Your task to perform on an android device: open app "DoorDash - Dasher" Image 0: 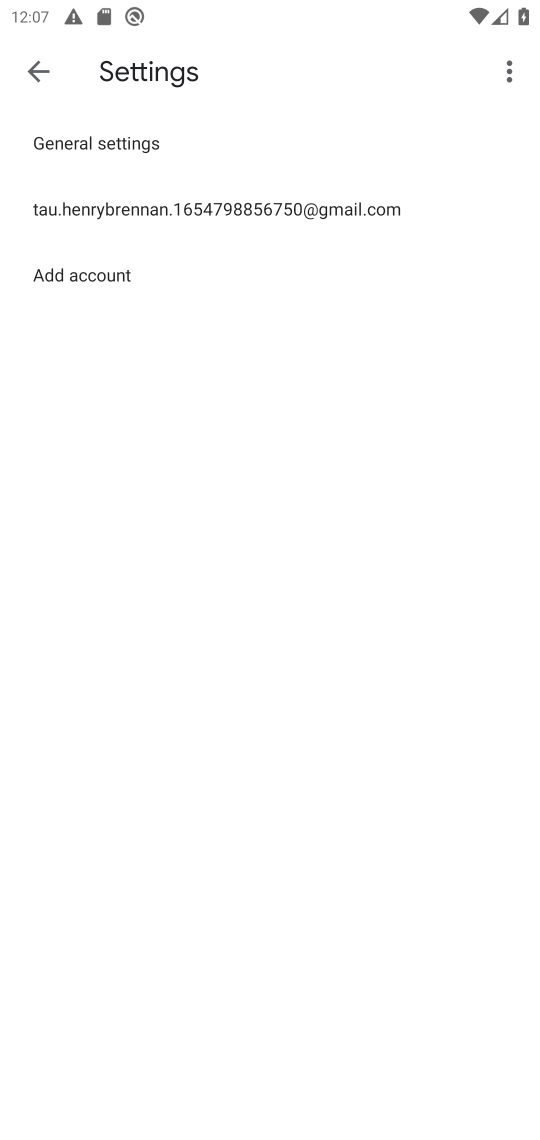
Step 0: press home button
Your task to perform on an android device: open app "DoorDash - Dasher" Image 1: 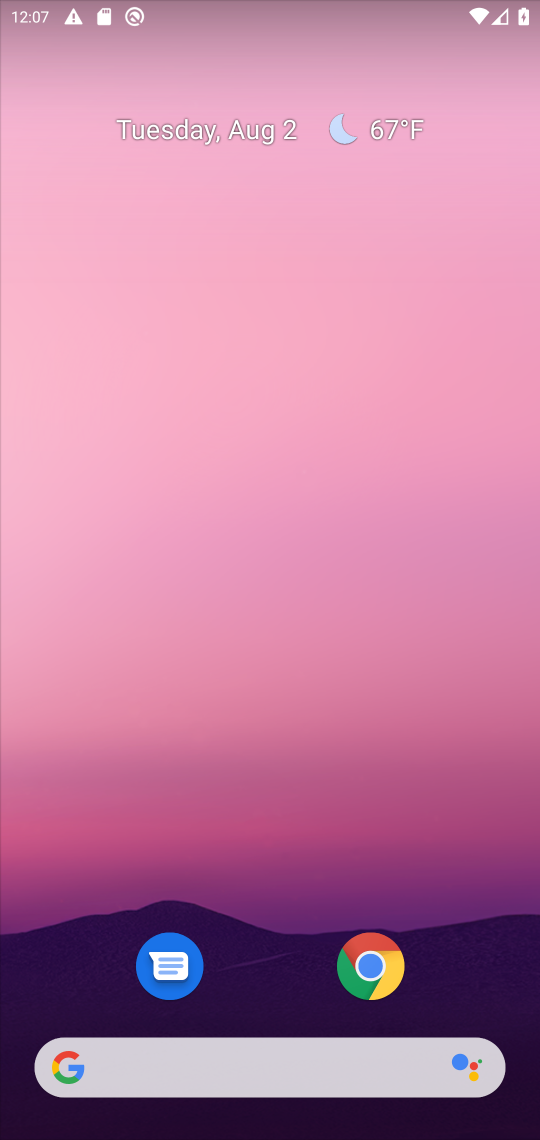
Step 1: drag from (463, 969) to (410, 103)
Your task to perform on an android device: open app "DoorDash - Dasher" Image 2: 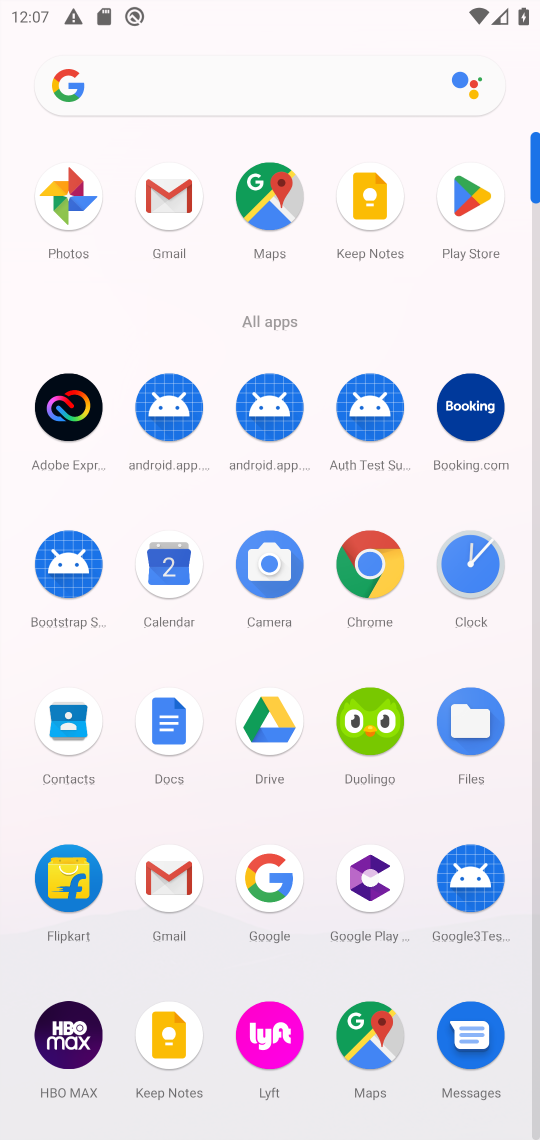
Step 2: click (458, 201)
Your task to perform on an android device: open app "DoorDash - Dasher" Image 3: 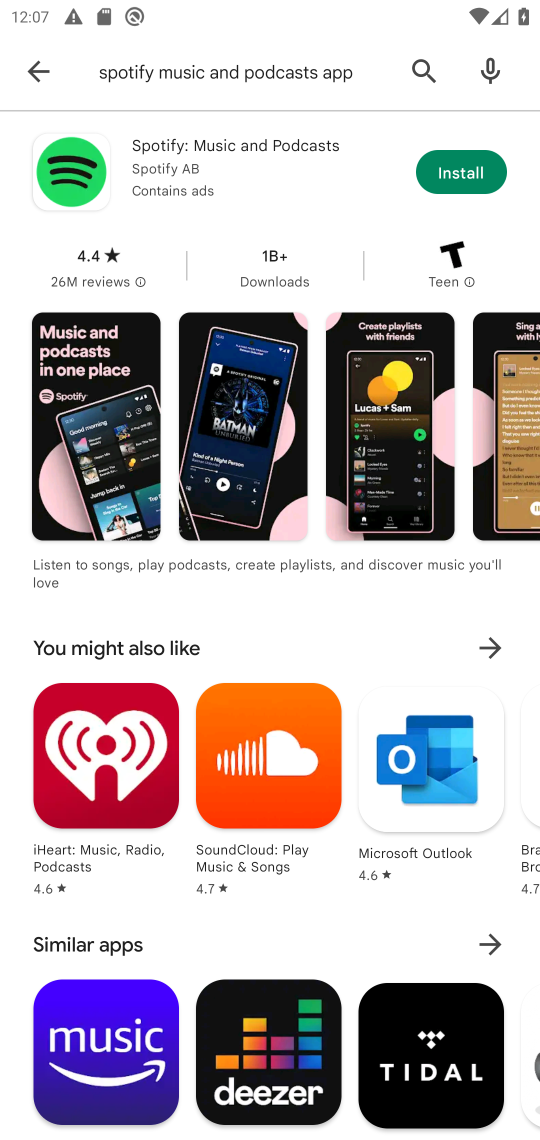
Step 3: click (420, 69)
Your task to perform on an android device: open app "DoorDash - Dasher" Image 4: 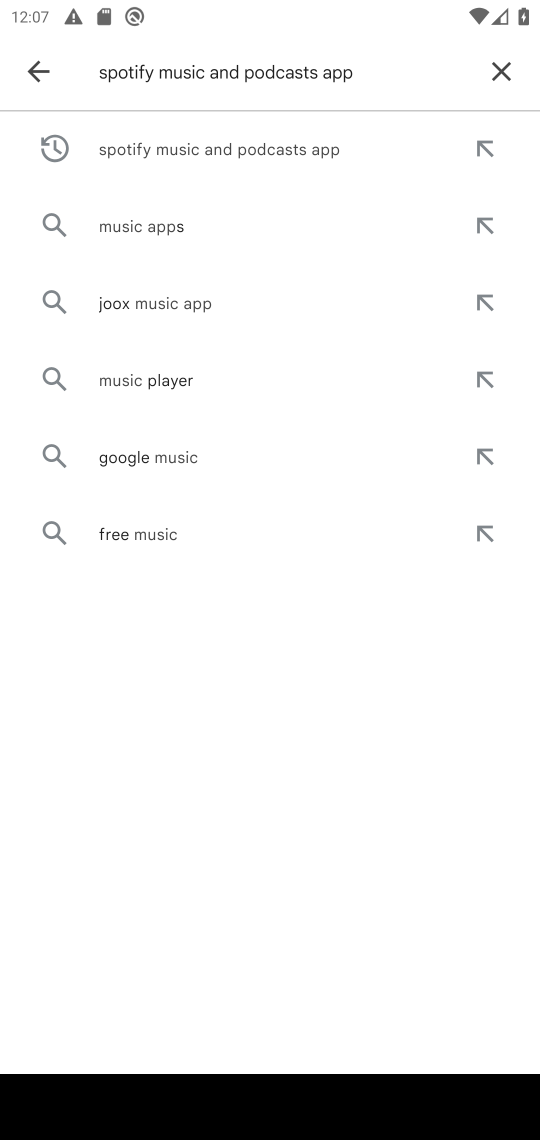
Step 4: click (489, 74)
Your task to perform on an android device: open app "DoorDash - Dasher" Image 5: 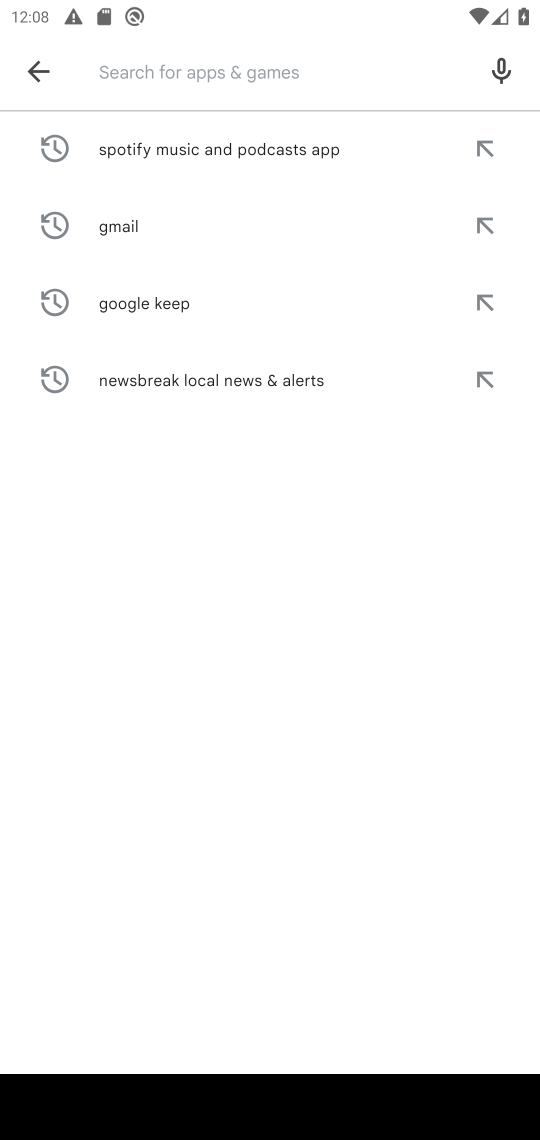
Step 5: type "doordash dasher"
Your task to perform on an android device: open app "DoorDash - Dasher" Image 6: 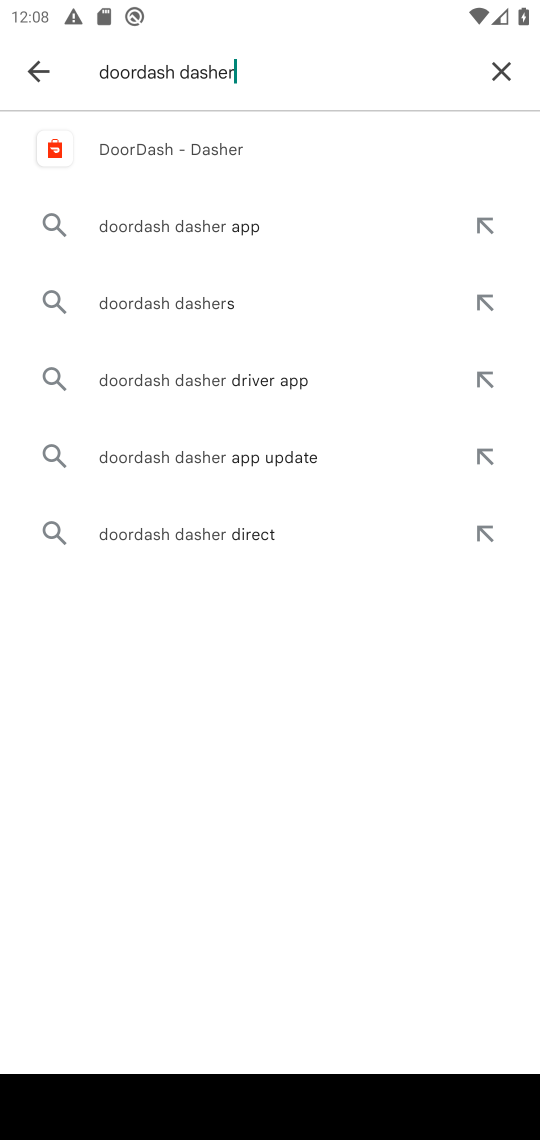
Step 6: click (217, 147)
Your task to perform on an android device: open app "DoorDash - Dasher" Image 7: 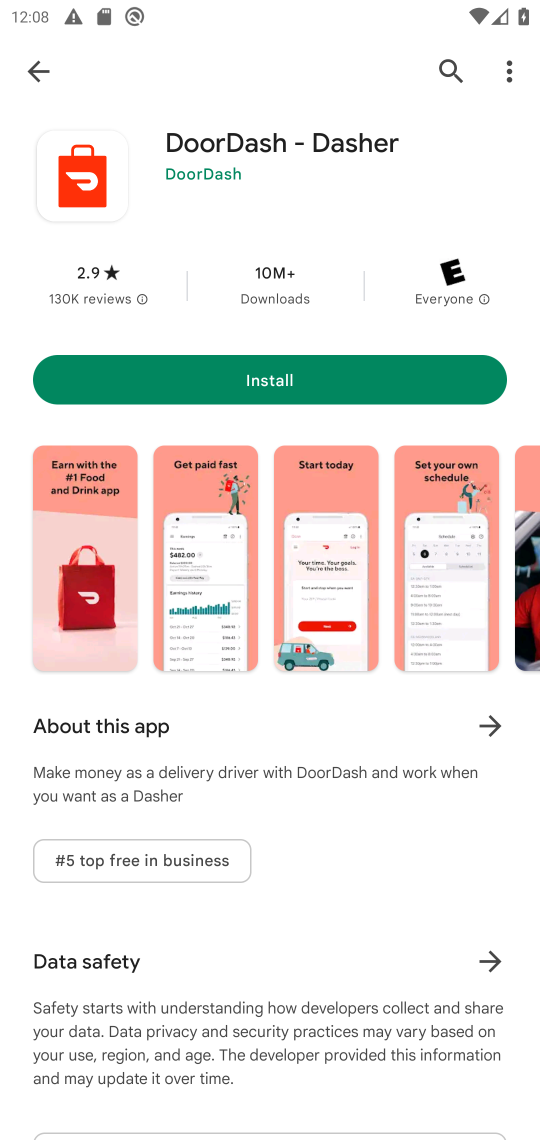
Step 7: task complete